Your task to perform on an android device: Go to Amazon Image 0: 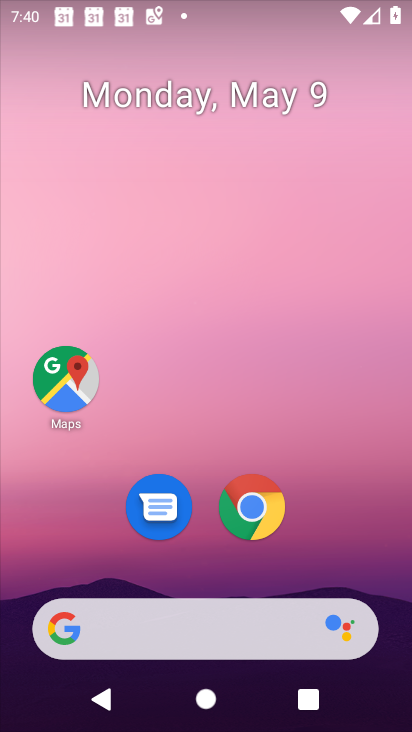
Step 0: drag from (268, 657) to (199, 357)
Your task to perform on an android device: Go to Amazon Image 1: 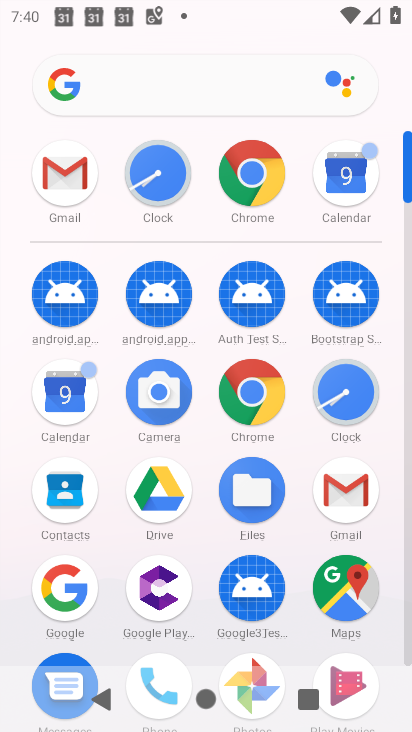
Step 1: click (249, 187)
Your task to perform on an android device: Go to Amazon Image 2: 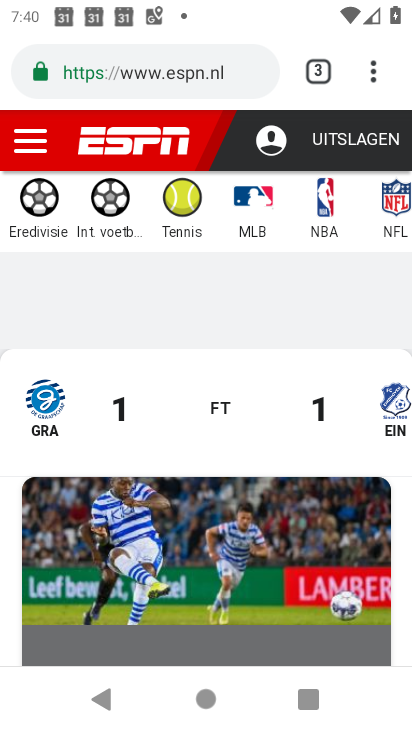
Step 2: click (320, 66)
Your task to perform on an android device: Go to Amazon Image 3: 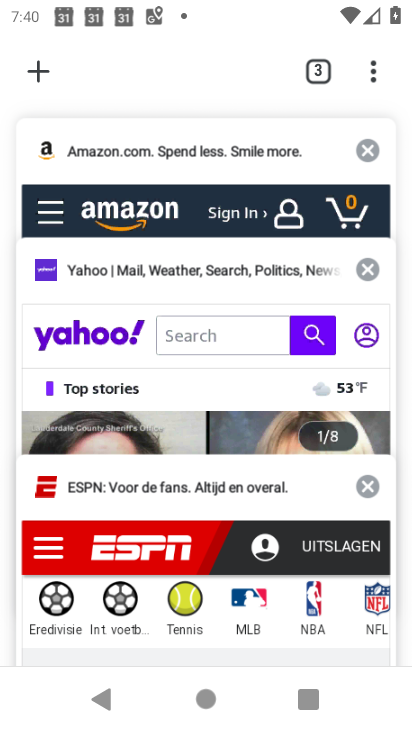
Step 3: click (34, 68)
Your task to perform on an android device: Go to Amazon Image 4: 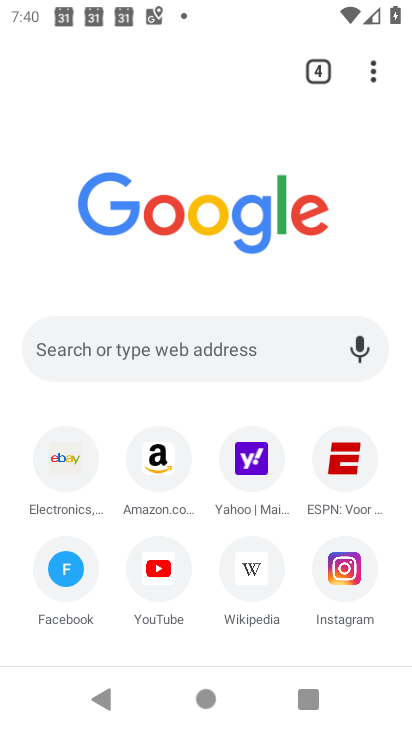
Step 4: click (156, 482)
Your task to perform on an android device: Go to Amazon Image 5: 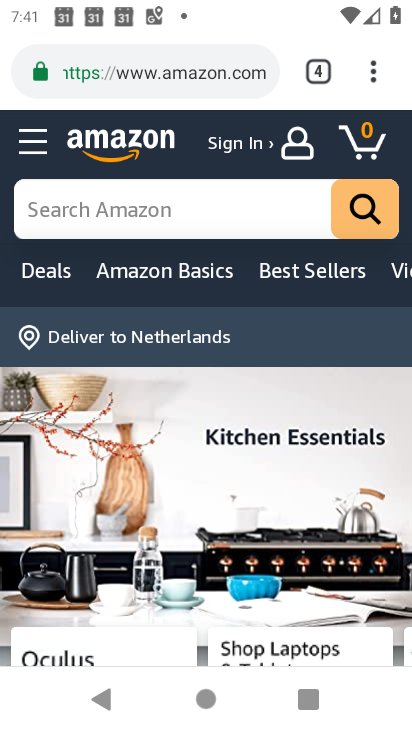
Step 5: task complete